Your task to perform on an android device: Set the phone to "Do not disturb". Image 0: 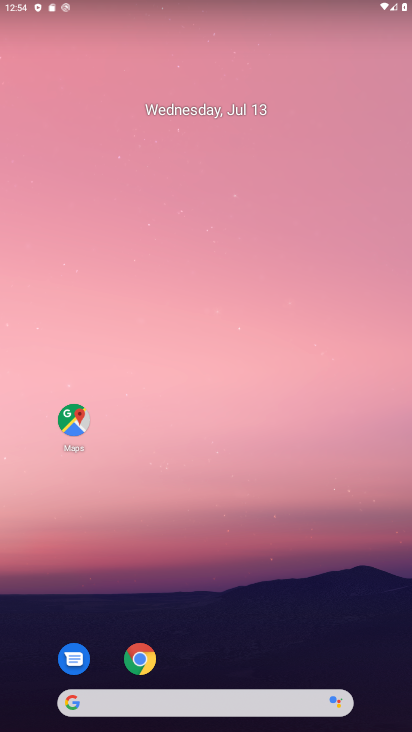
Step 0: drag from (314, 647) to (326, 39)
Your task to perform on an android device: Set the phone to "Do not disturb". Image 1: 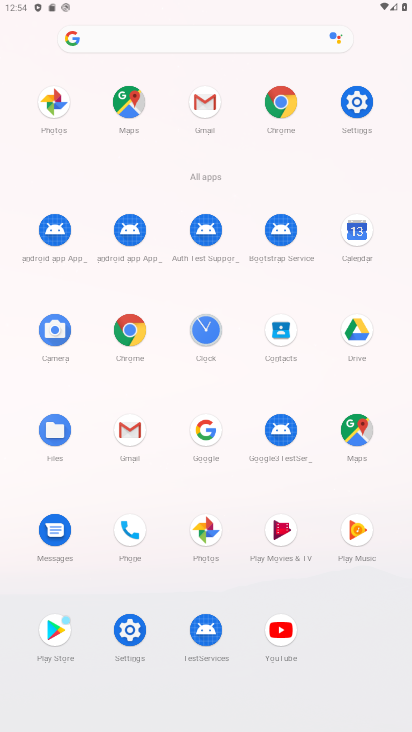
Step 1: click (121, 630)
Your task to perform on an android device: Set the phone to "Do not disturb". Image 2: 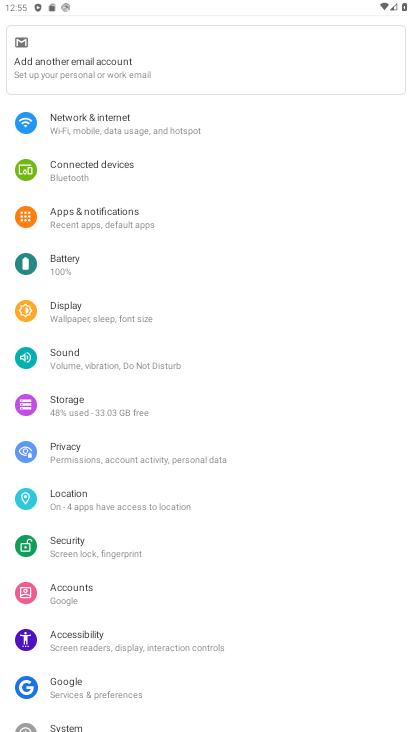
Step 2: click (142, 366)
Your task to perform on an android device: Set the phone to "Do not disturb". Image 3: 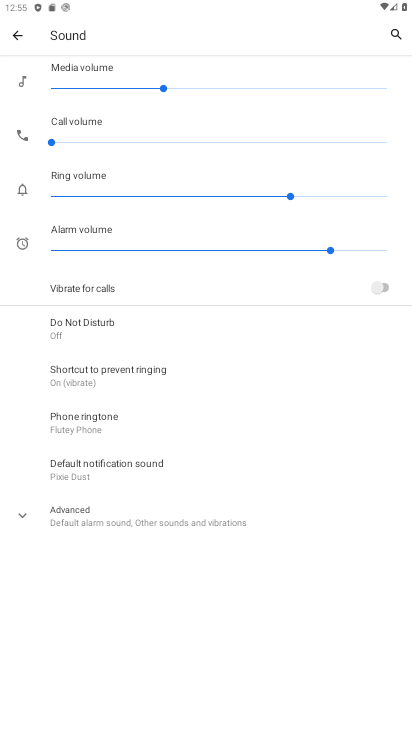
Step 3: click (95, 306)
Your task to perform on an android device: Set the phone to "Do not disturb". Image 4: 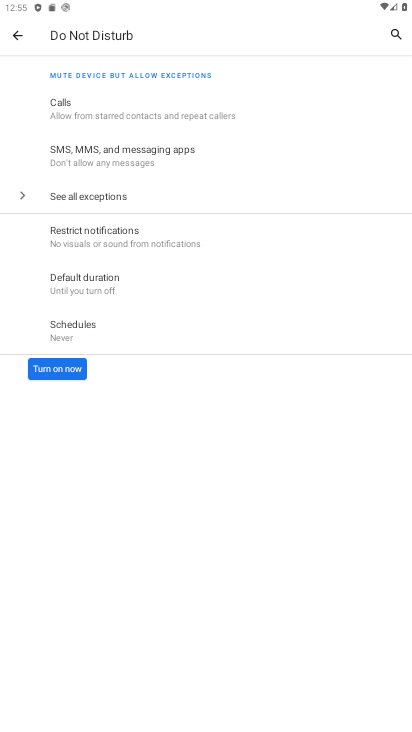
Step 4: click (57, 369)
Your task to perform on an android device: Set the phone to "Do not disturb". Image 5: 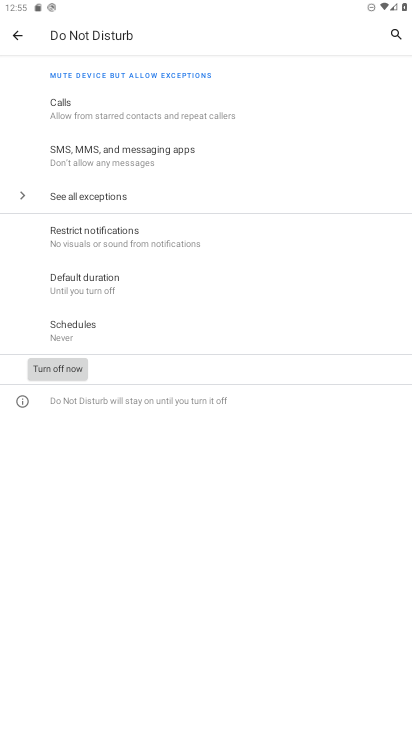
Step 5: task complete